Your task to perform on an android device: find which apps use the phone's location Image 0: 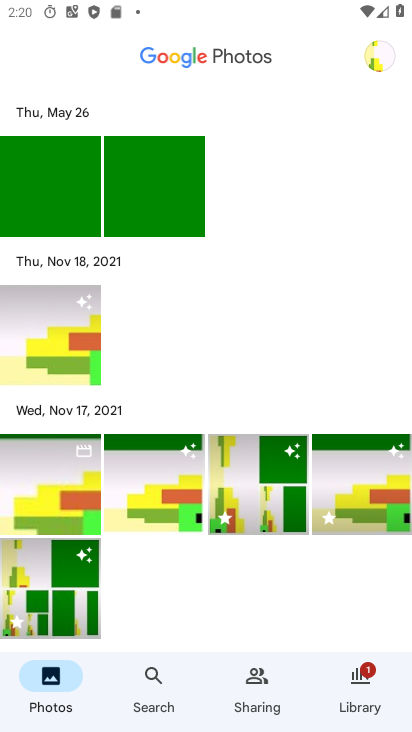
Step 0: drag from (188, 546) to (244, 237)
Your task to perform on an android device: find which apps use the phone's location Image 1: 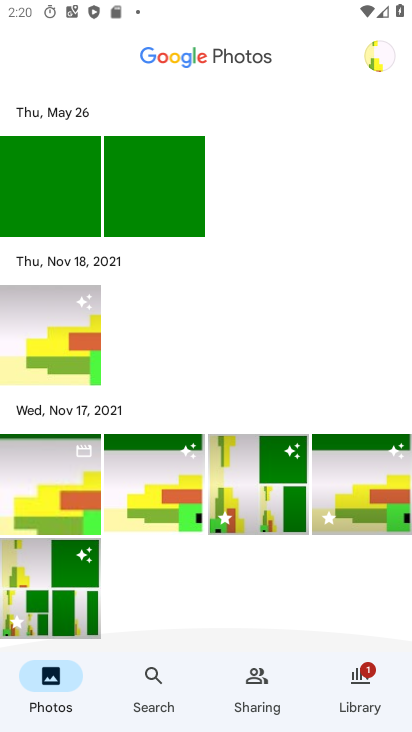
Step 1: drag from (256, 255) to (402, 620)
Your task to perform on an android device: find which apps use the phone's location Image 2: 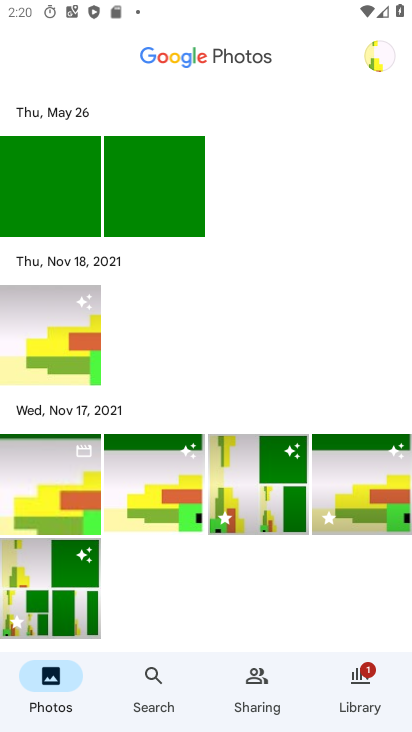
Step 2: press home button
Your task to perform on an android device: find which apps use the phone's location Image 3: 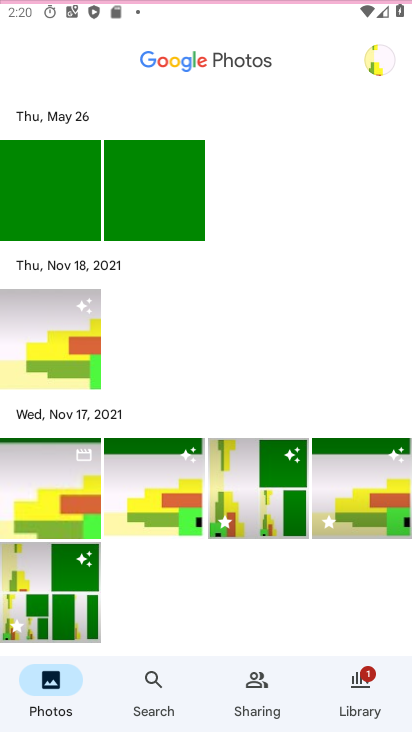
Step 3: drag from (149, 606) to (182, 149)
Your task to perform on an android device: find which apps use the phone's location Image 4: 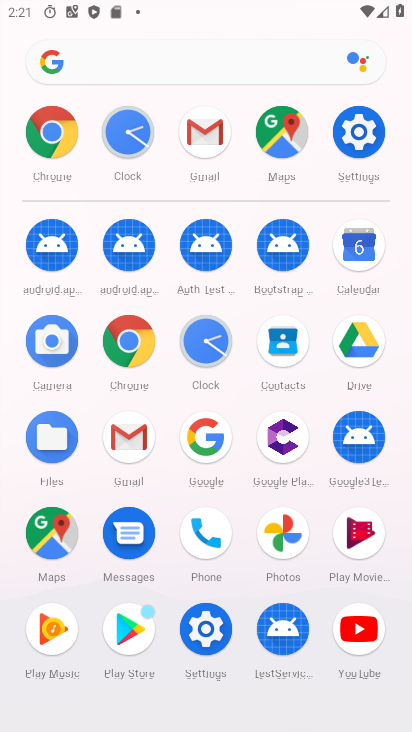
Step 4: drag from (237, 499) to (266, 161)
Your task to perform on an android device: find which apps use the phone's location Image 5: 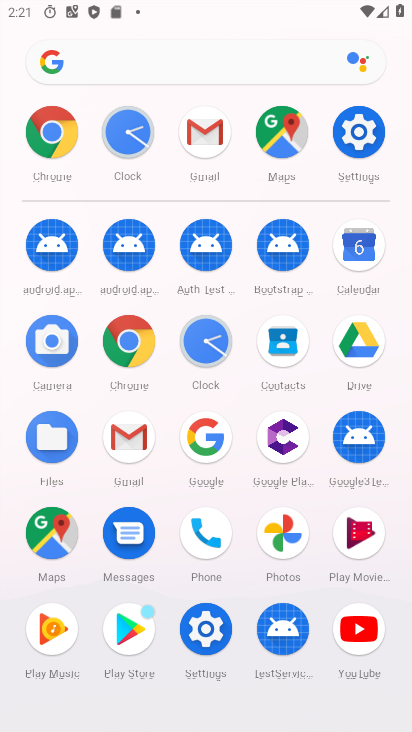
Step 5: click (361, 129)
Your task to perform on an android device: find which apps use the phone's location Image 6: 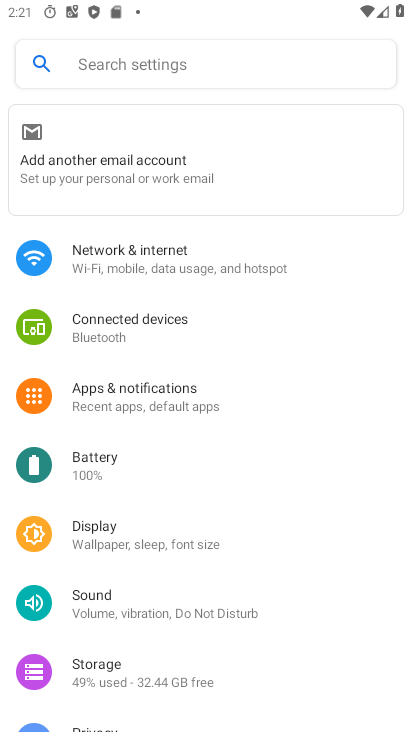
Step 6: drag from (186, 504) to (223, 266)
Your task to perform on an android device: find which apps use the phone's location Image 7: 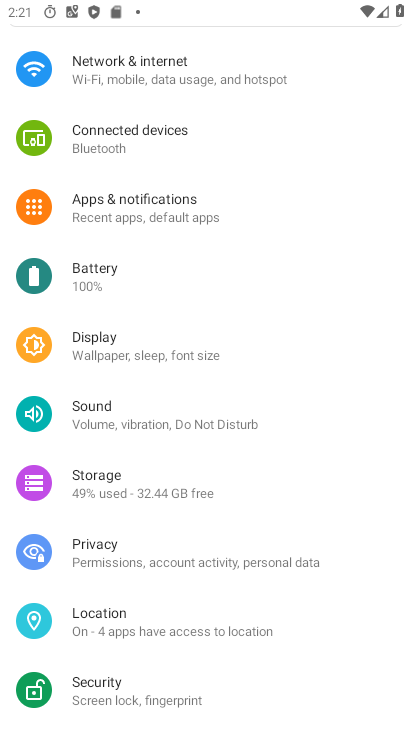
Step 7: click (152, 619)
Your task to perform on an android device: find which apps use the phone's location Image 8: 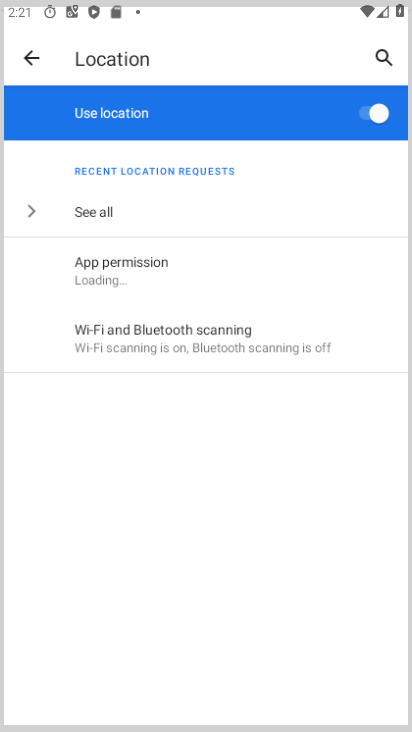
Step 8: drag from (157, 613) to (258, 165)
Your task to perform on an android device: find which apps use the phone's location Image 9: 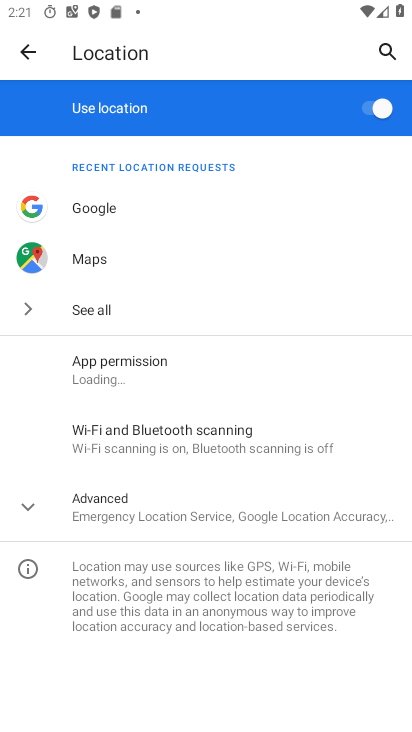
Step 9: click (165, 368)
Your task to perform on an android device: find which apps use the phone's location Image 10: 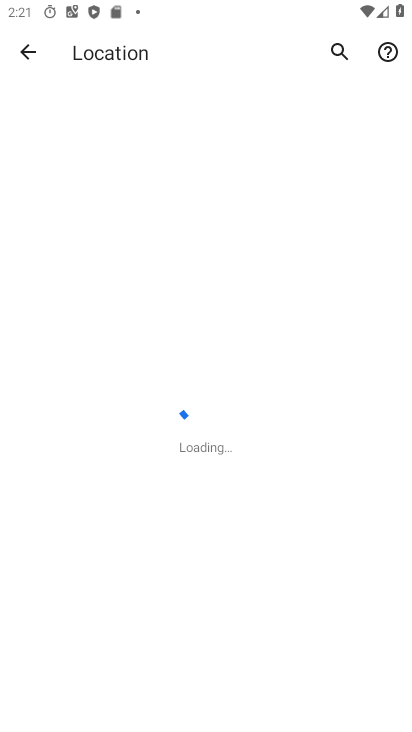
Step 10: task complete